Your task to perform on an android device: Open wifi settings Image 0: 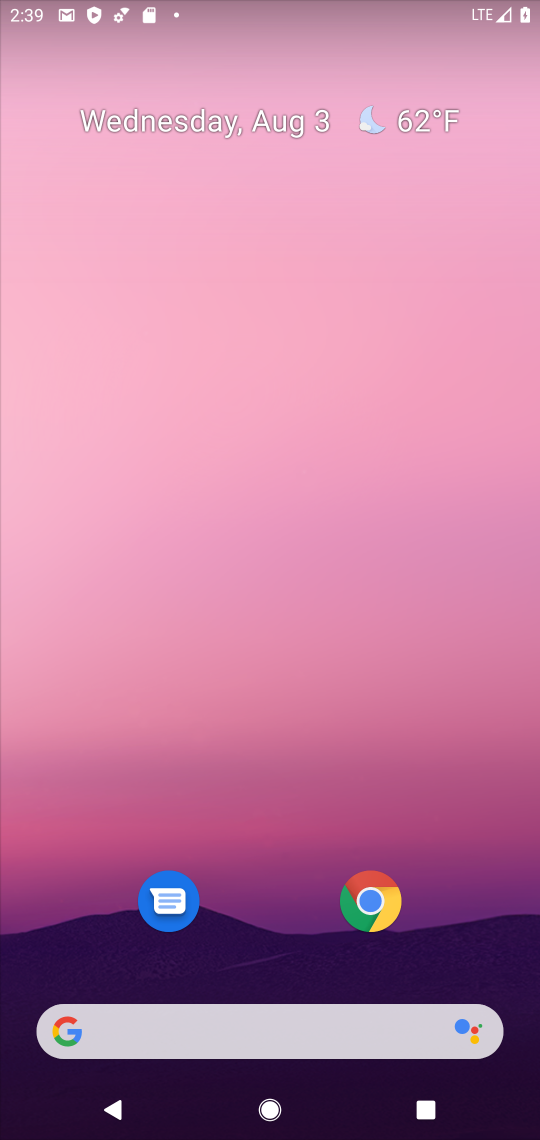
Step 0: drag from (237, 984) to (251, 407)
Your task to perform on an android device: Open wifi settings Image 1: 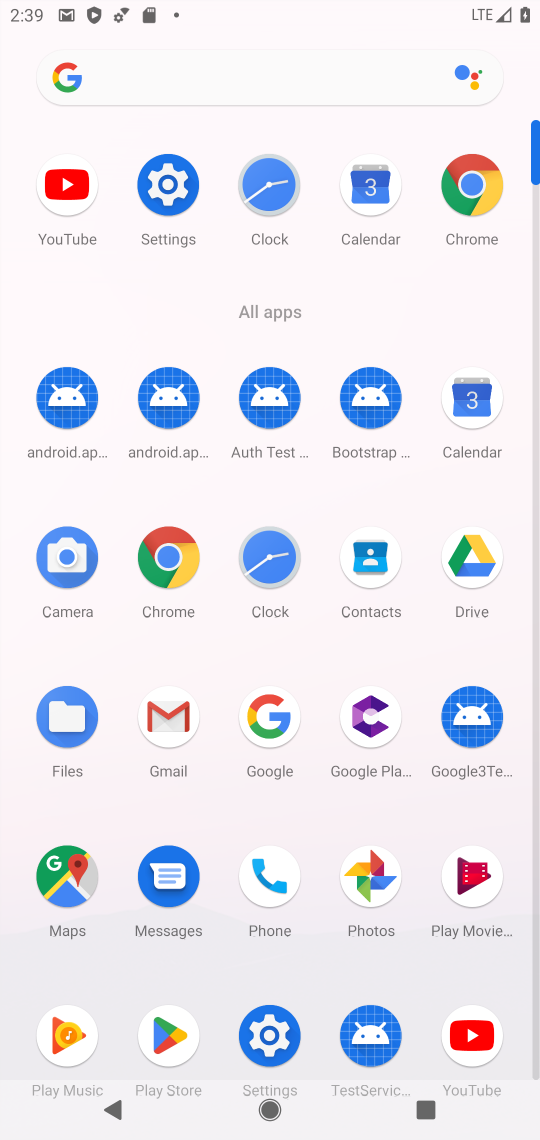
Step 1: click (178, 200)
Your task to perform on an android device: Open wifi settings Image 2: 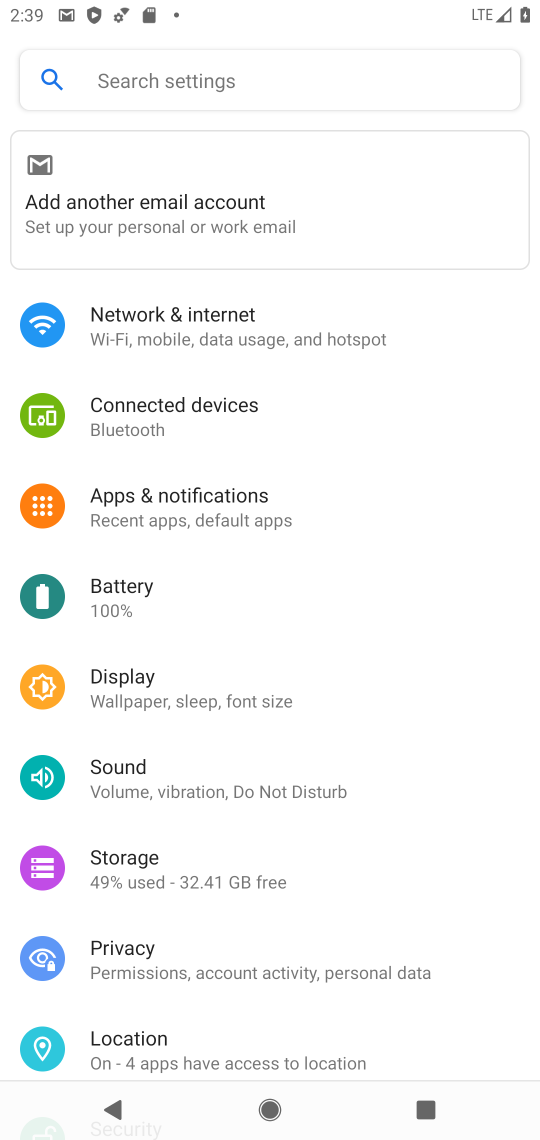
Step 2: click (145, 341)
Your task to perform on an android device: Open wifi settings Image 3: 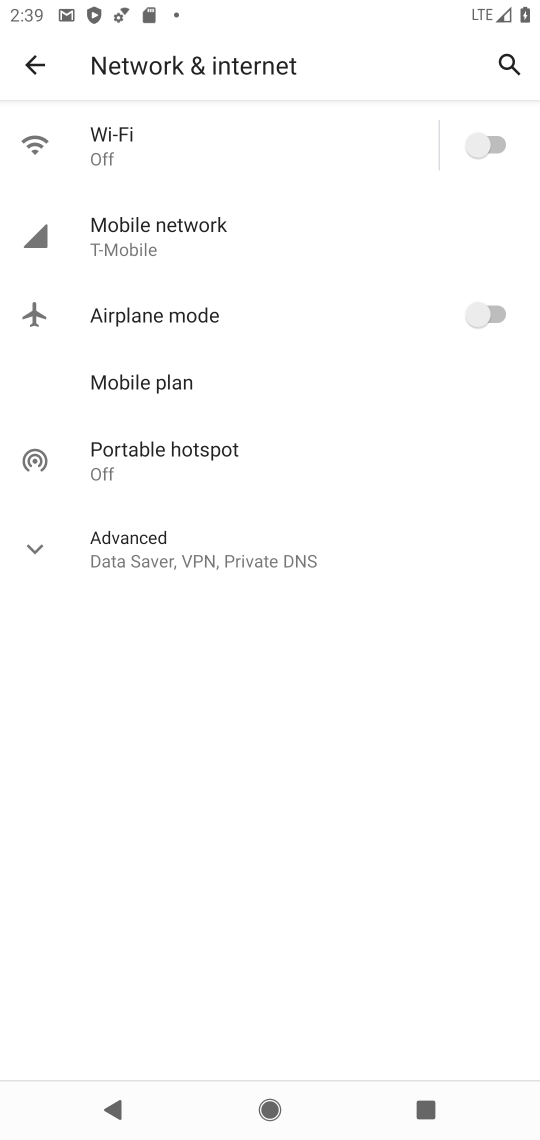
Step 3: click (194, 144)
Your task to perform on an android device: Open wifi settings Image 4: 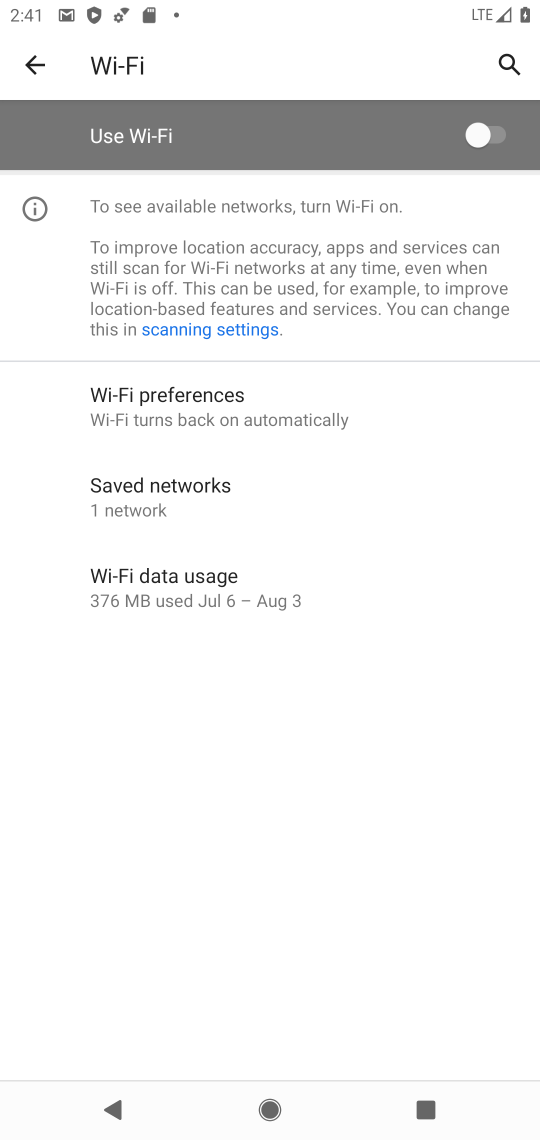
Step 4: task complete